Your task to perform on an android device: Open Google Chrome and open the bookmarks view Image 0: 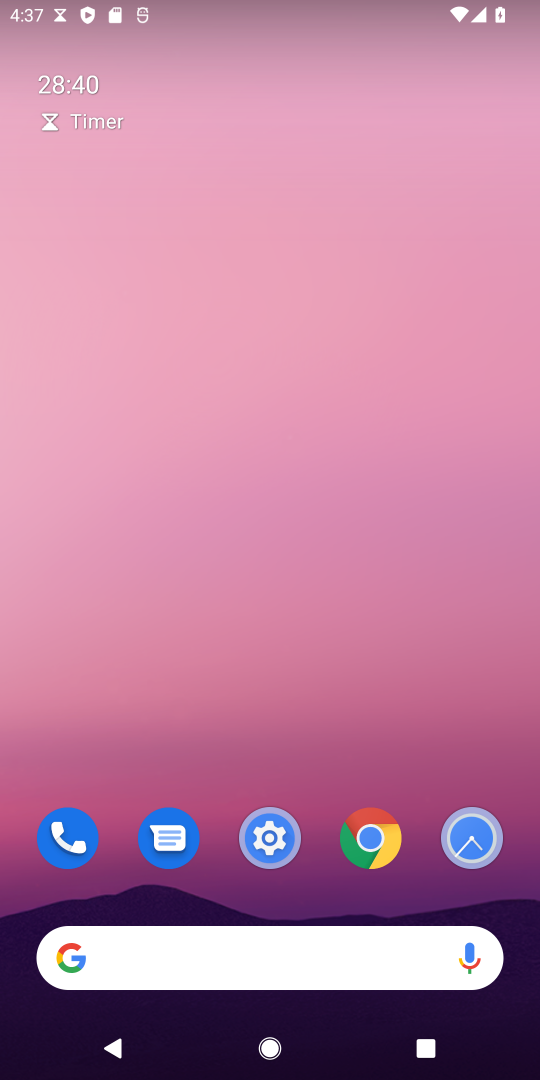
Step 0: drag from (318, 788) to (322, 179)
Your task to perform on an android device: Open Google Chrome and open the bookmarks view Image 1: 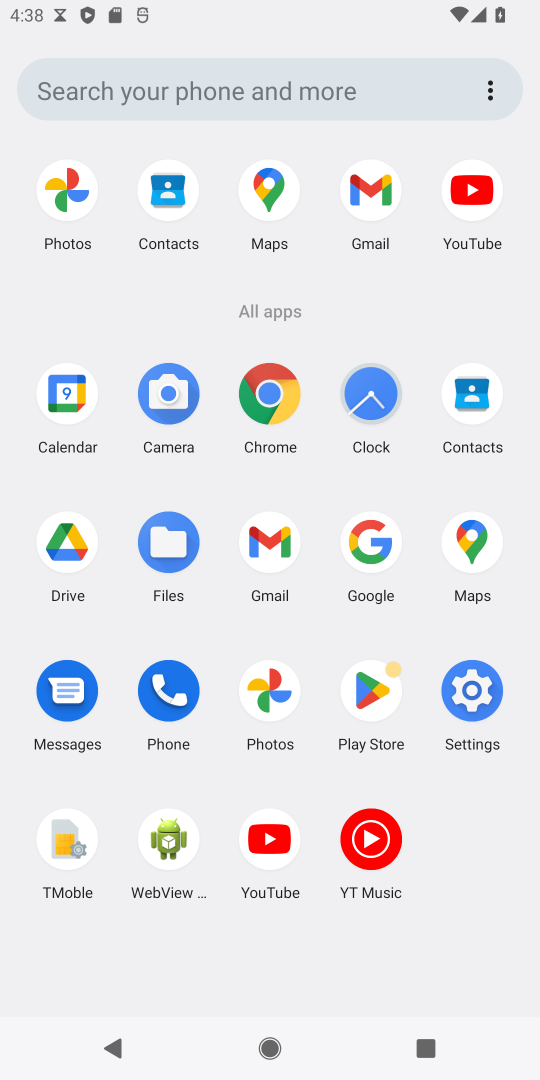
Step 1: click (277, 391)
Your task to perform on an android device: Open Google Chrome and open the bookmarks view Image 2: 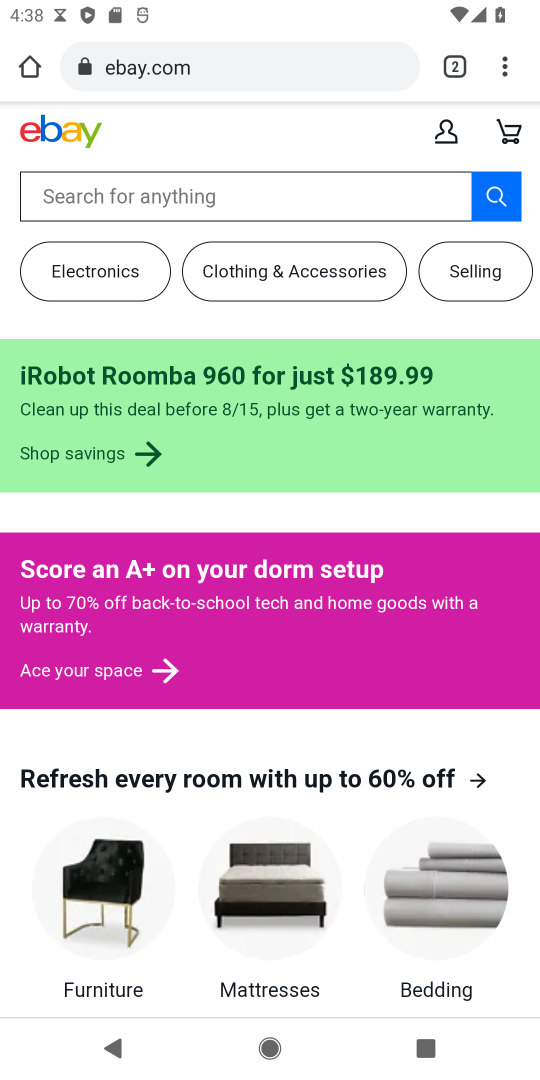
Step 2: click (509, 75)
Your task to perform on an android device: Open Google Chrome and open the bookmarks view Image 3: 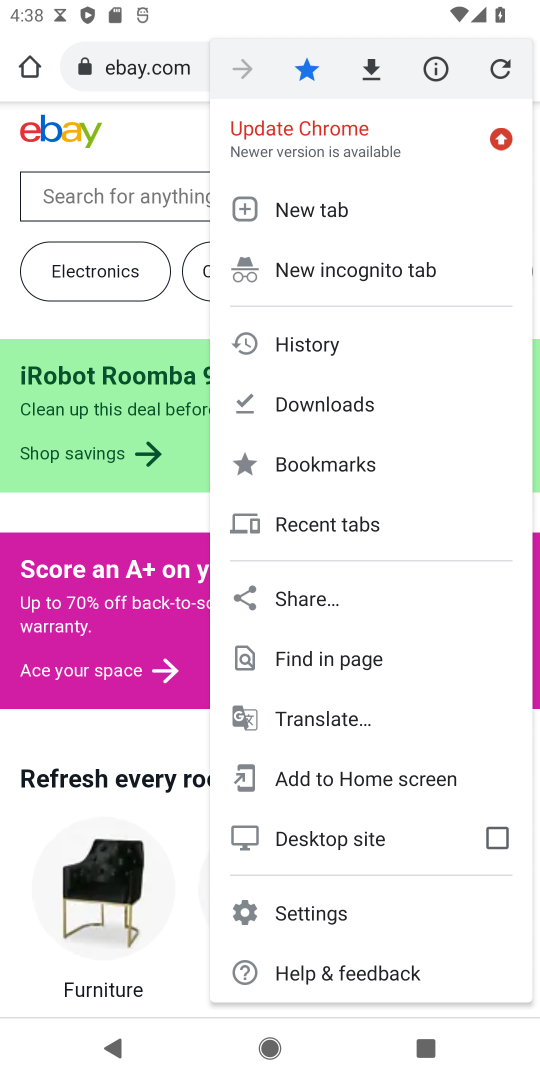
Step 3: click (352, 466)
Your task to perform on an android device: Open Google Chrome and open the bookmarks view Image 4: 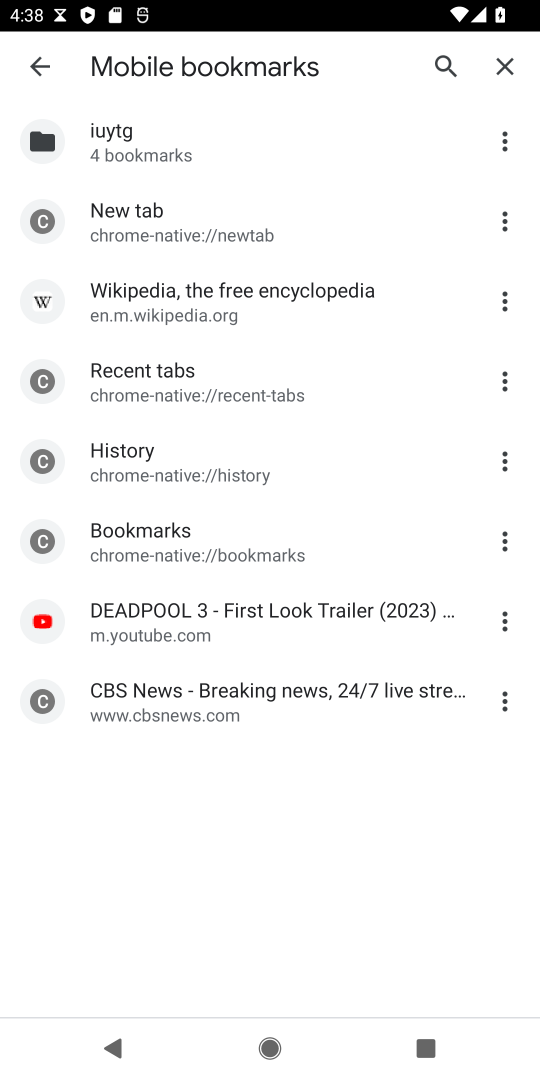
Step 4: task complete